Your task to perform on an android device: see creations saved in the google photos Image 0: 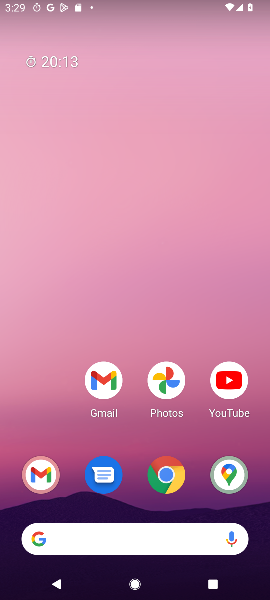
Step 0: press home button
Your task to perform on an android device: see creations saved in the google photos Image 1: 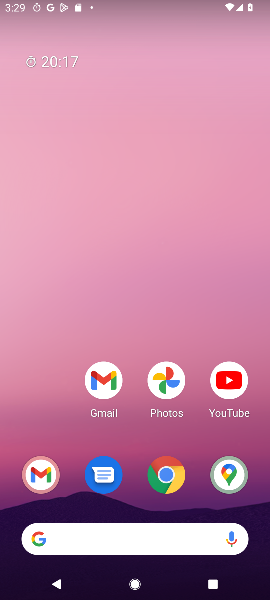
Step 1: drag from (53, 436) to (58, 175)
Your task to perform on an android device: see creations saved in the google photos Image 2: 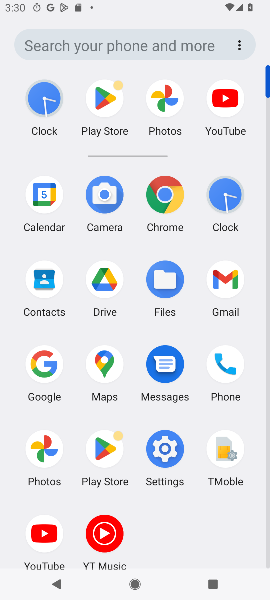
Step 2: click (50, 450)
Your task to perform on an android device: see creations saved in the google photos Image 3: 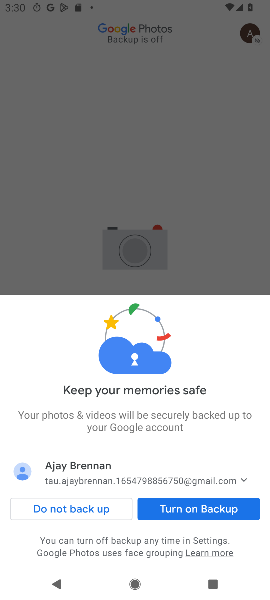
Step 3: click (65, 510)
Your task to perform on an android device: see creations saved in the google photos Image 4: 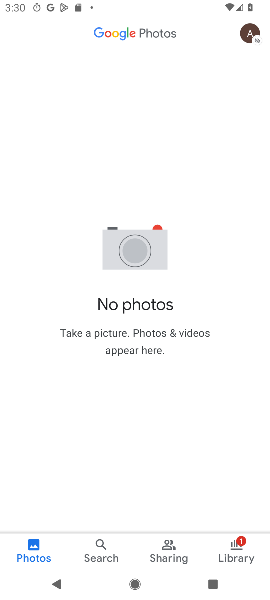
Step 4: click (104, 551)
Your task to perform on an android device: see creations saved in the google photos Image 5: 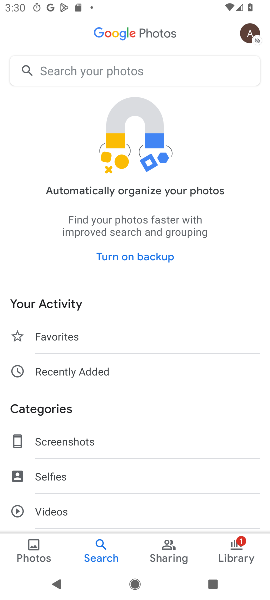
Step 5: drag from (175, 463) to (180, 420)
Your task to perform on an android device: see creations saved in the google photos Image 6: 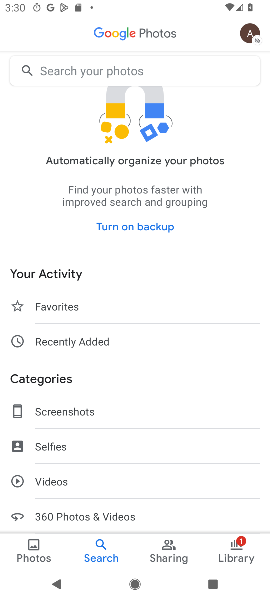
Step 6: drag from (188, 488) to (197, 385)
Your task to perform on an android device: see creations saved in the google photos Image 7: 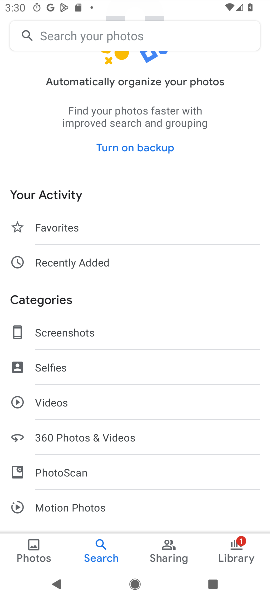
Step 7: drag from (188, 495) to (188, 361)
Your task to perform on an android device: see creations saved in the google photos Image 8: 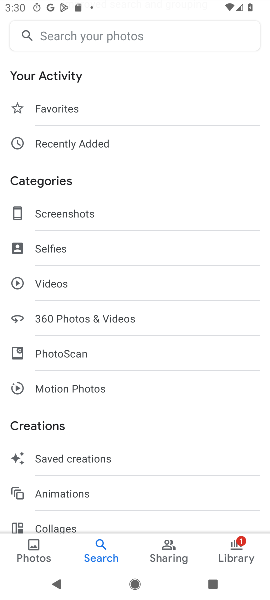
Step 8: click (176, 468)
Your task to perform on an android device: see creations saved in the google photos Image 9: 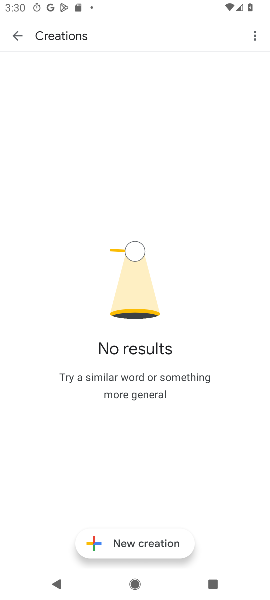
Step 9: task complete